Your task to perform on an android device: toggle improve location accuracy Image 0: 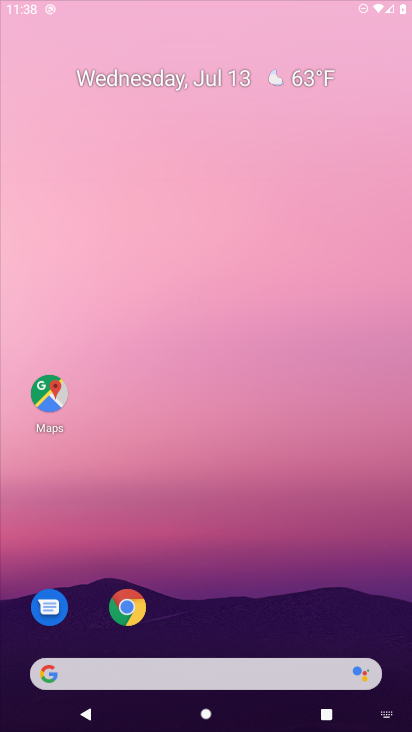
Step 0: press home button
Your task to perform on an android device: toggle improve location accuracy Image 1: 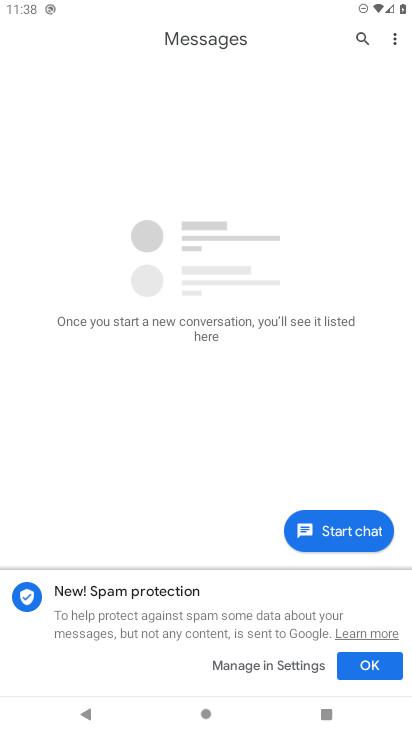
Step 1: drag from (350, 541) to (396, 148)
Your task to perform on an android device: toggle improve location accuracy Image 2: 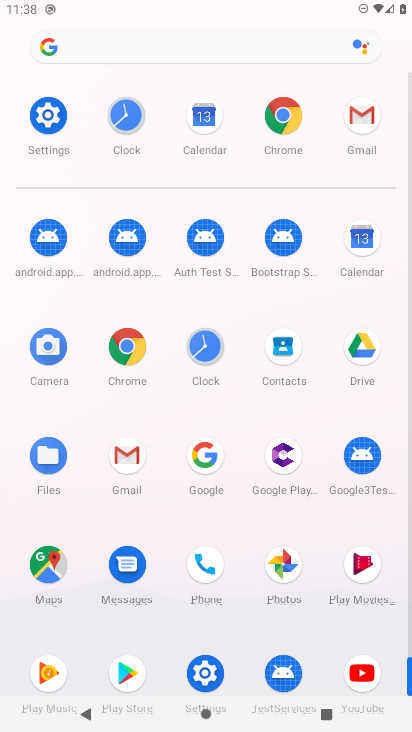
Step 2: click (366, 127)
Your task to perform on an android device: toggle improve location accuracy Image 3: 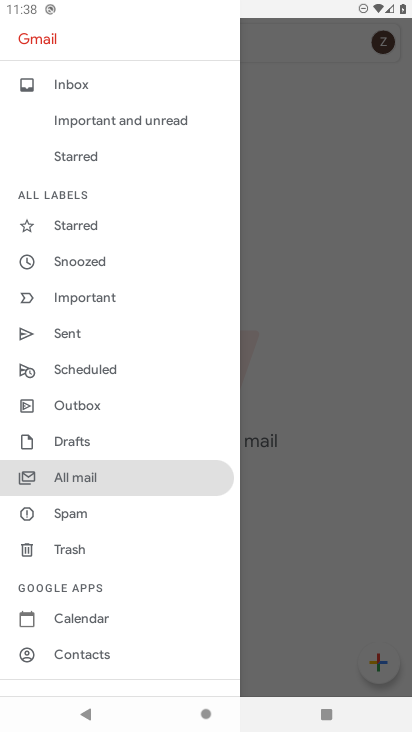
Step 3: press back button
Your task to perform on an android device: toggle improve location accuracy Image 4: 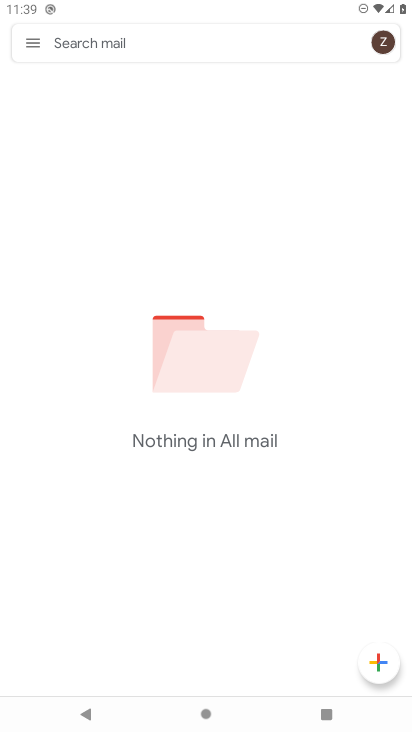
Step 4: click (32, 44)
Your task to perform on an android device: toggle improve location accuracy Image 5: 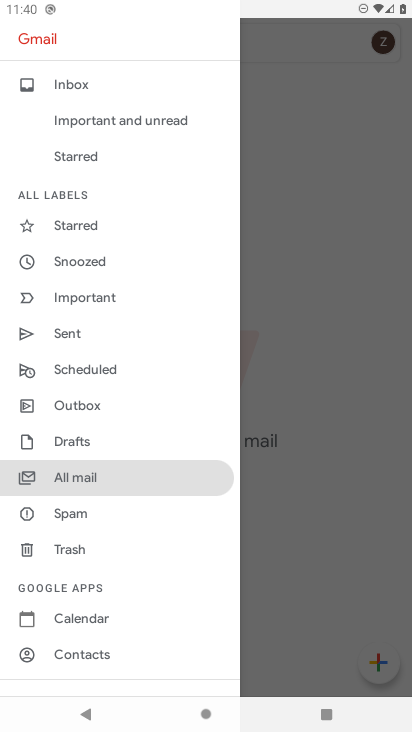
Step 5: press home button
Your task to perform on an android device: toggle improve location accuracy Image 6: 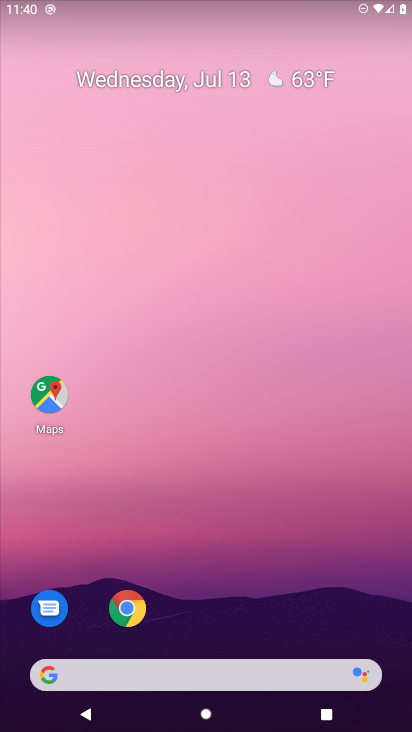
Step 6: drag from (280, 424) to (323, 33)
Your task to perform on an android device: toggle improve location accuracy Image 7: 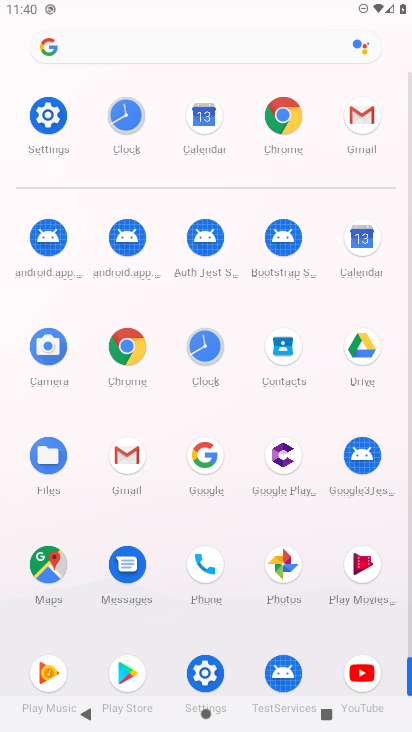
Step 7: click (29, 114)
Your task to perform on an android device: toggle improve location accuracy Image 8: 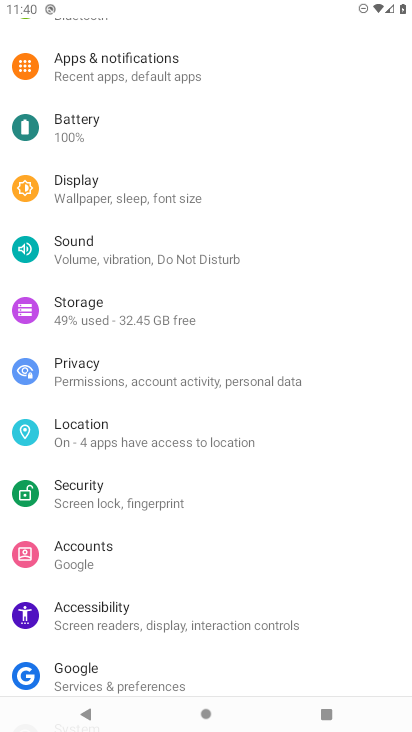
Step 8: click (56, 433)
Your task to perform on an android device: toggle improve location accuracy Image 9: 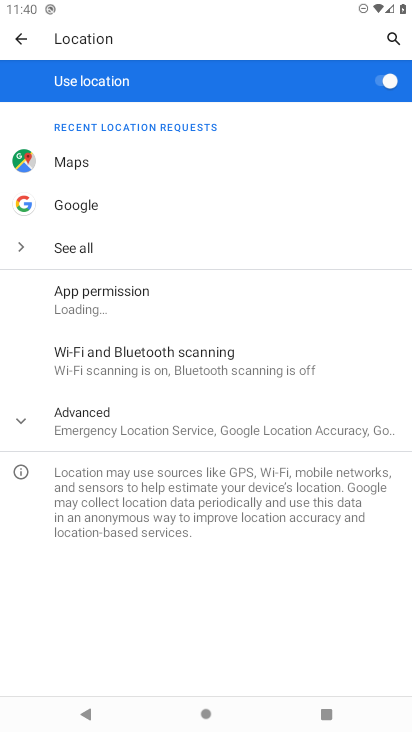
Step 9: click (23, 417)
Your task to perform on an android device: toggle improve location accuracy Image 10: 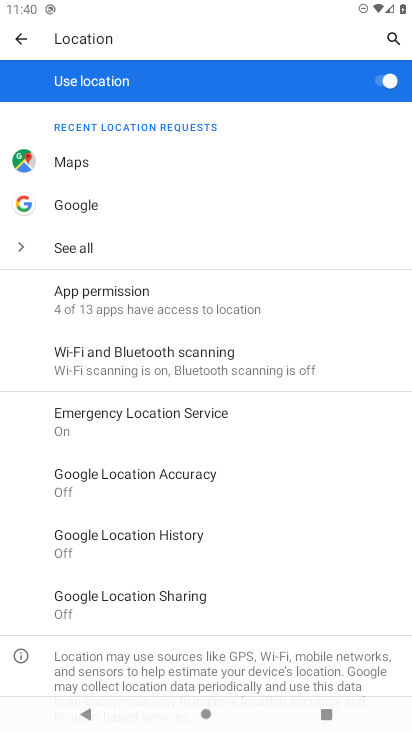
Step 10: click (150, 485)
Your task to perform on an android device: toggle improve location accuracy Image 11: 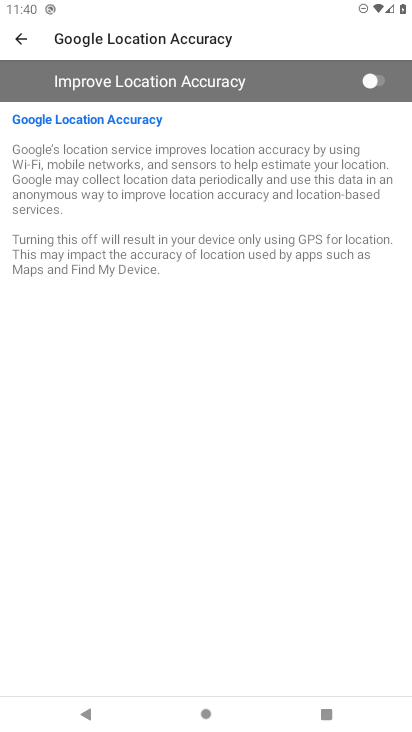
Step 11: click (367, 86)
Your task to perform on an android device: toggle improve location accuracy Image 12: 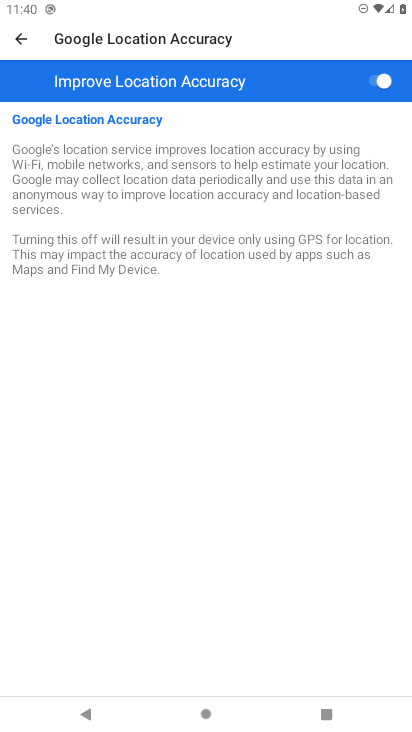
Step 12: task complete